Your task to perform on an android device: toggle notifications settings in the gmail app Image 0: 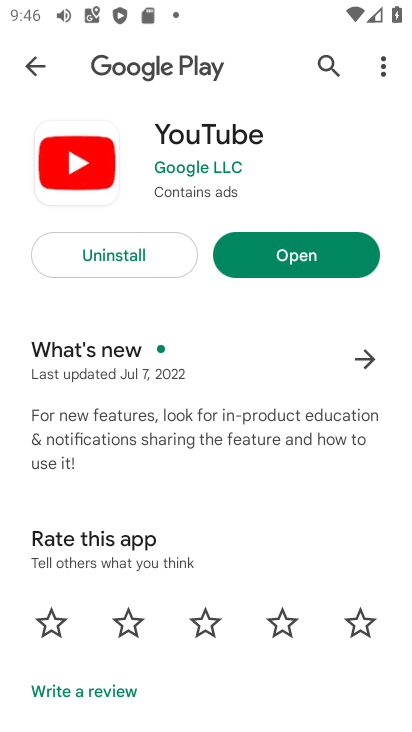
Step 0: press home button
Your task to perform on an android device: toggle notifications settings in the gmail app Image 1: 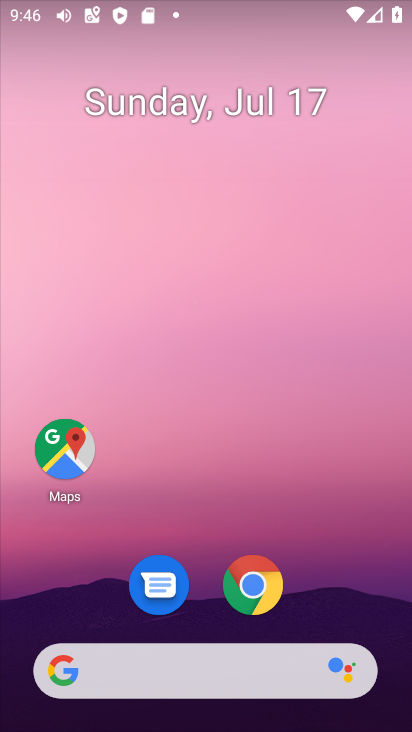
Step 1: drag from (318, 607) to (314, 56)
Your task to perform on an android device: toggle notifications settings in the gmail app Image 2: 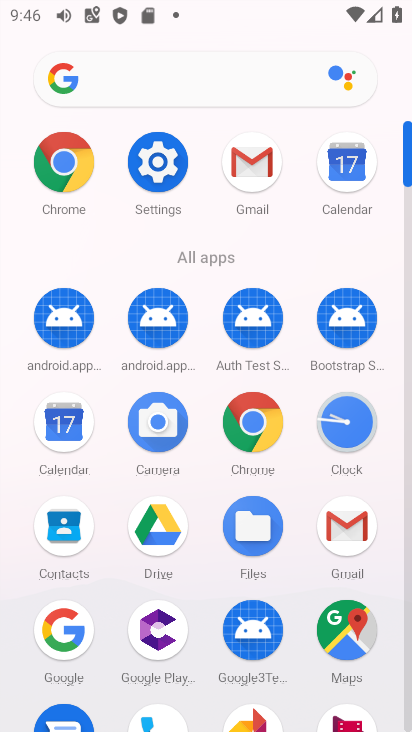
Step 2: click (261, 166)
Your task to perform on an android device: toggle notifications settings in the gmail app Image 3: 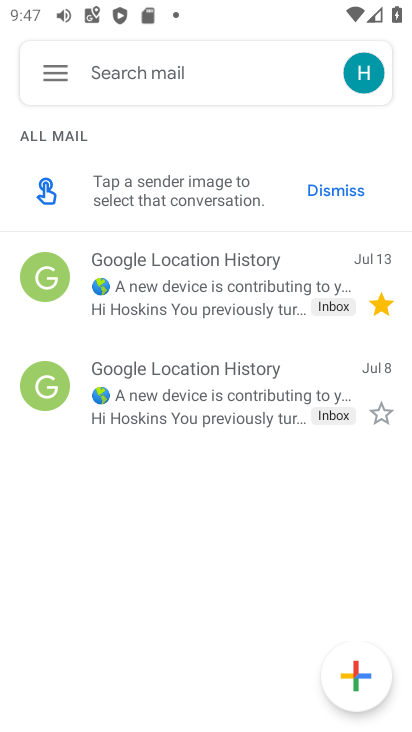
Step 3: click (45, 67)
Your task to perform on an android device: toggle notifications settings in the gmail app Image 4: 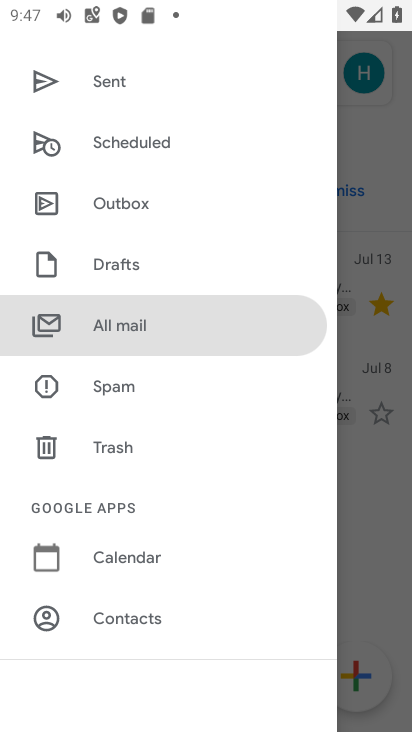
Step 4: drag from (151, 461) to (174, 64)
Your task to perform on an android device: toggle notifications settings in the gmail app Image 5: 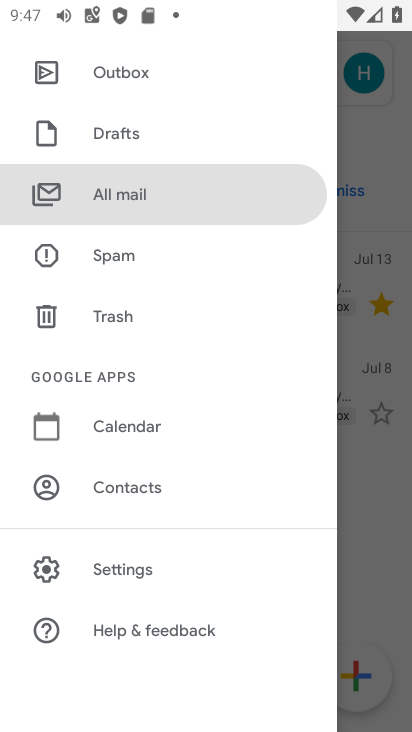
Step 5: click (134, 573)
Your task to perform on an android device: toggle notifications settings in the gmail app Image 6: 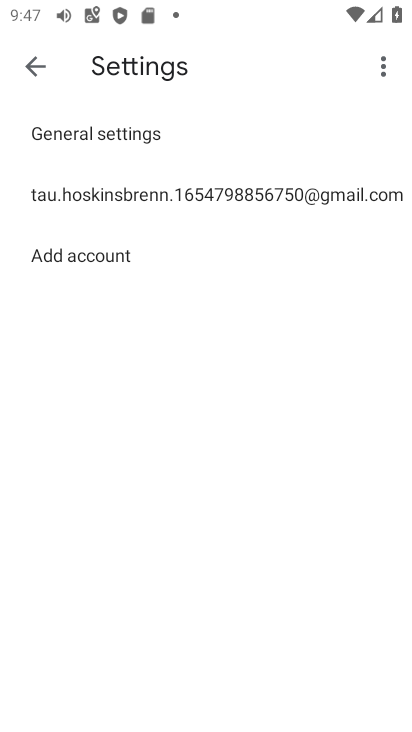
Step 6: click (300, 184)
Your task to perform on an android device: toggle notifications settings in the gmail app Image 7: 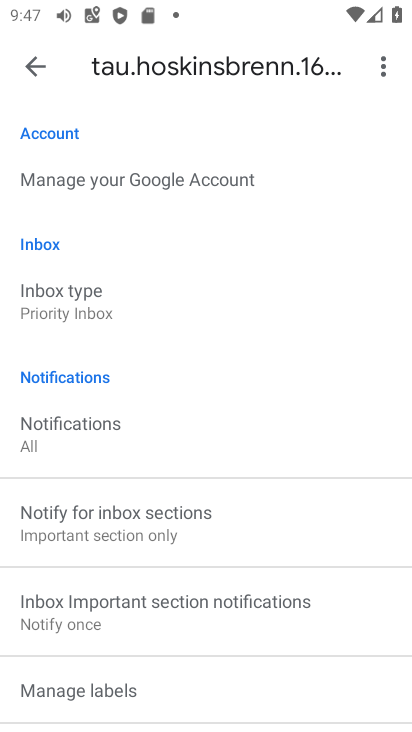
Step 7: drag from (222, 539) to (207, 223)
Your task to perform on an android device: toggle notifications settings in the gmail app Image 8: 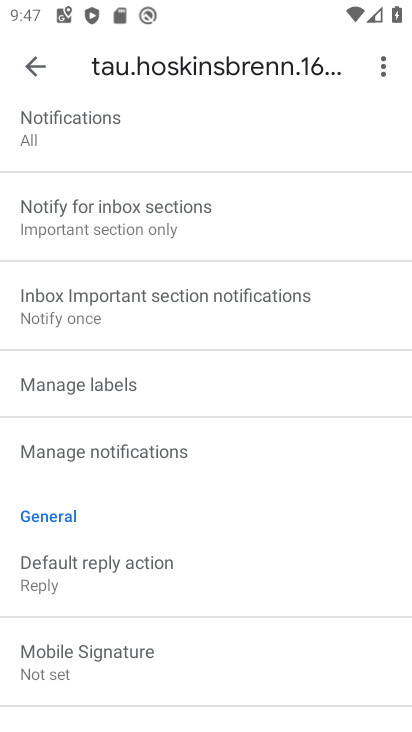
Step 8: click (178, 448)
Your task to perform on an android device: toggle notifications settings in the gmail app Image 9: 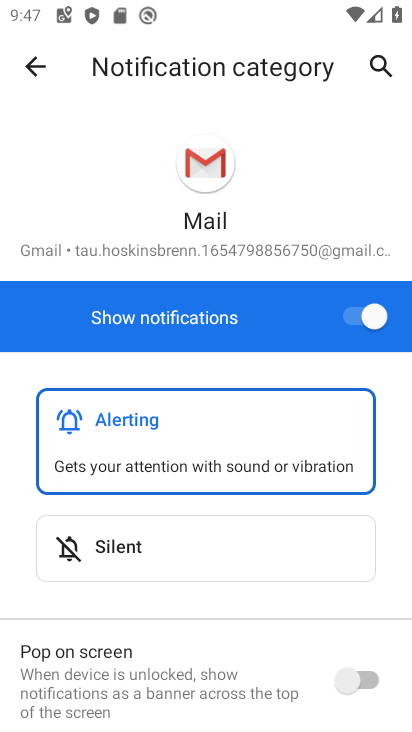
Step 9: click (359, 306)
Your task to perform on an android device: toggle notifications settings in the gmail app Image 10: 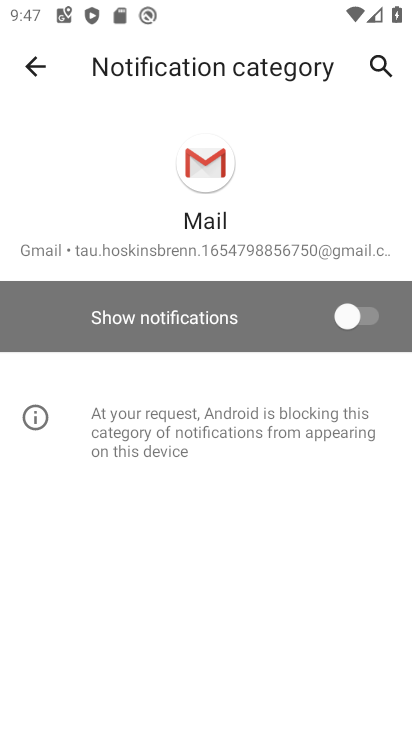
Step 10: task complete